Your task to perform on an android device: manage bookmarks in the chrome app Image 0: 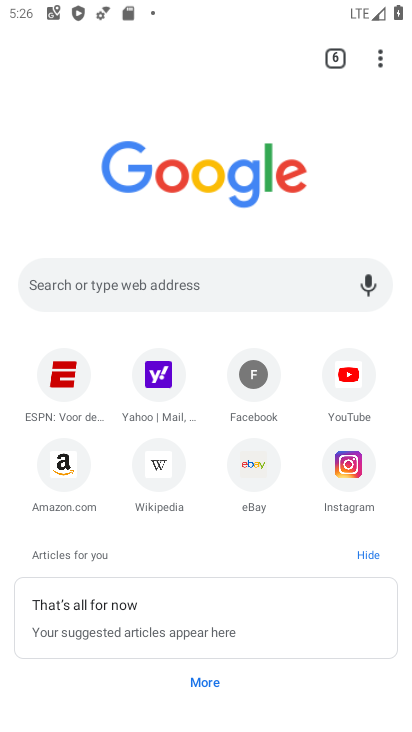
Step 0: click (386, 66)
Your task to perform on an android device: manage bookmarks in the chrome app Image 1: 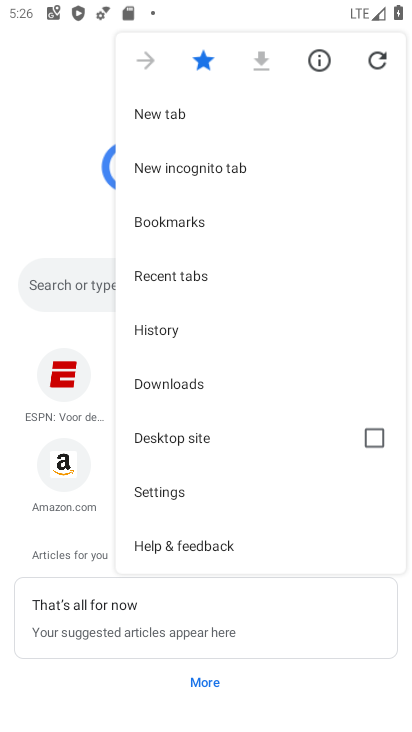
Step 1: click (155, 230)
Your task to perform on an android device: manage bookmarks in the chrome app Image 2: 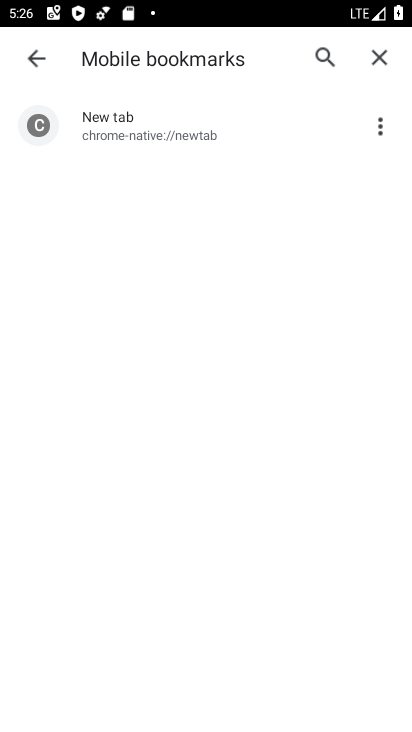
Step 2: click (374, 126)
Your task to perform on an android device: manage bookmarks in the chrome app Image 3: 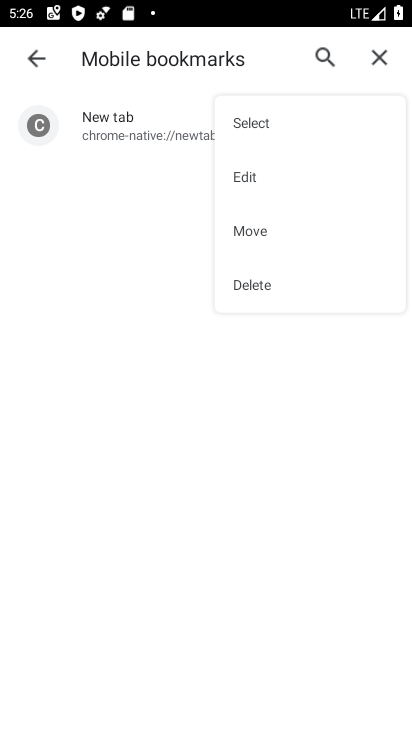
Step 3: click (246, 180)
Your task to perform on an android device: manage bookmarks in the chrome app Image 4: 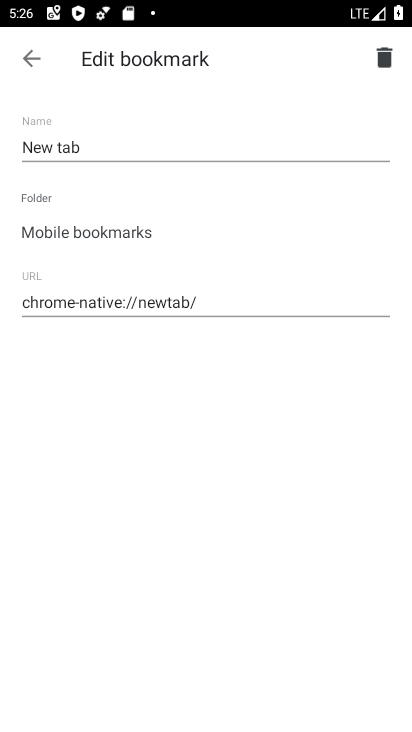
Step 4: task complete